Your task to perform on an android device: change notifications settings Image 0: 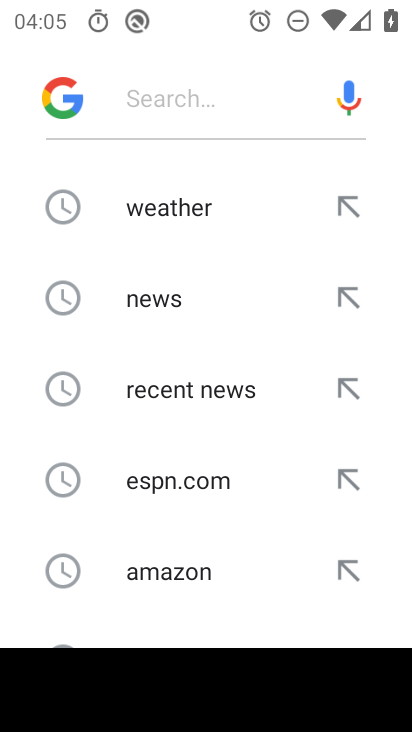
Step 0: press back button
Your task to perform on an android device: change notifications settings Image 1: 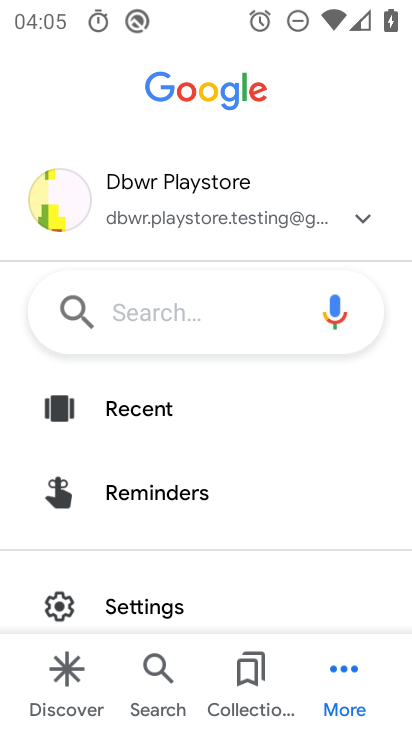
Step 1: press back button
Your task to perform on an android device: change notifications settings Image 2: 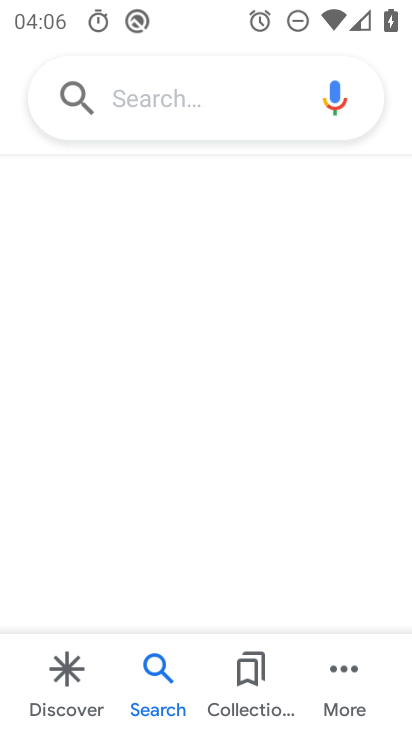
Step 2: press back button
Your task to perform on an android device: change notifications settings Image 3: 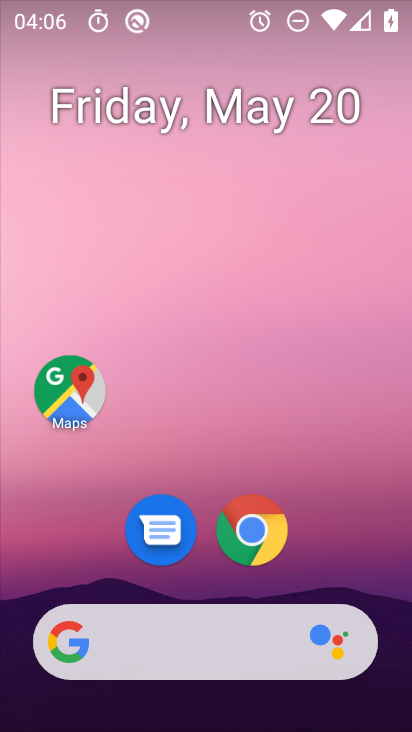
Step 3: drag from (390, 686) to (371, 309)
Your task to perform on an android device: change notifications settings Image 4: 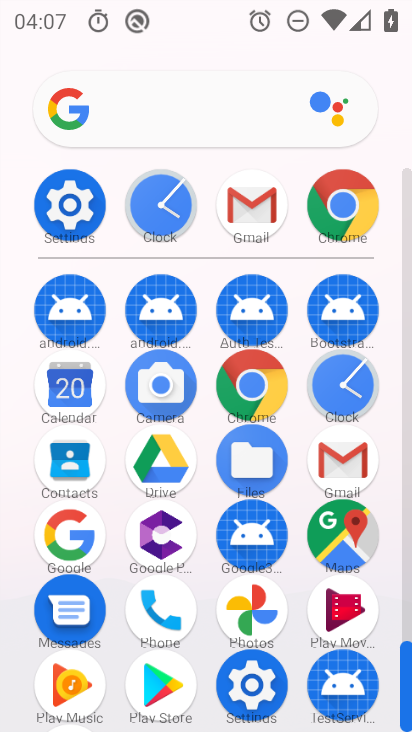
Step 4: click (241, 686)
Your task to perform on an android device: change notifications settings Image 5: 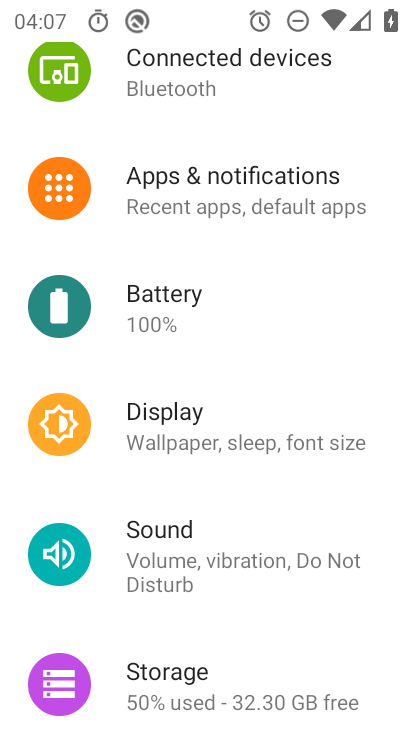
Step 5: click (180, 191)
Your task to perform on an android device: change notifications settings Image 6: 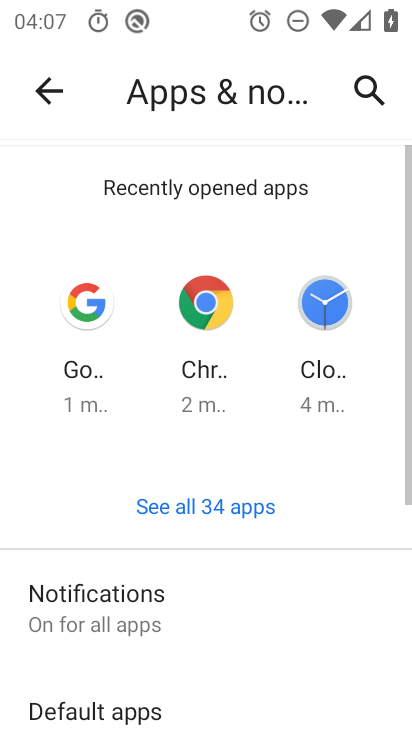
Step 6: click (104, 627)
Your task to perform on an android device: change notifications settings Image 7: 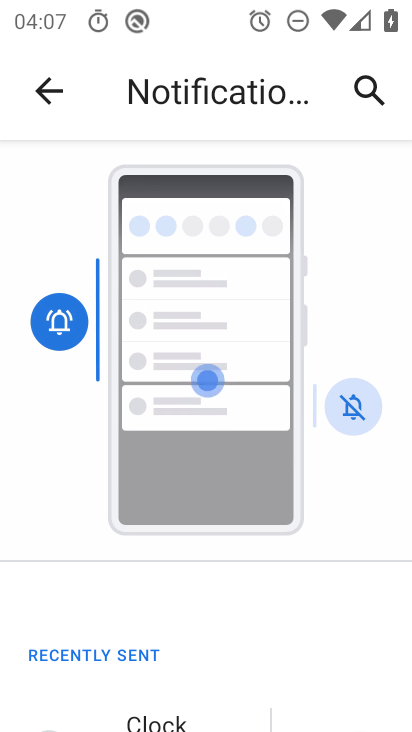
Step 7: task complete